Your task to perform on an android device: check data usage Image 0: 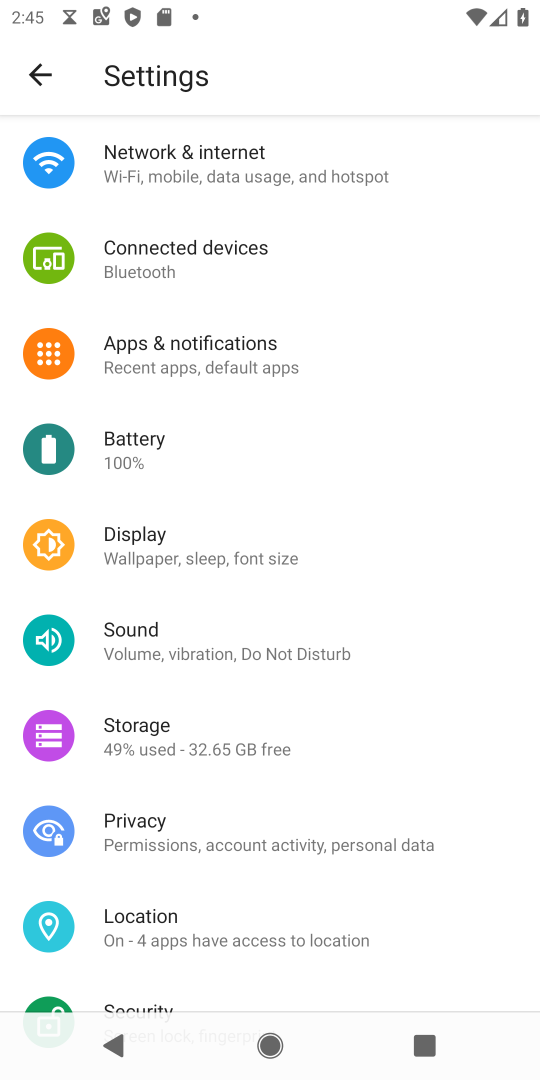
Step 0: press home button
Your task to perform on an android device: check data usage Image 1: 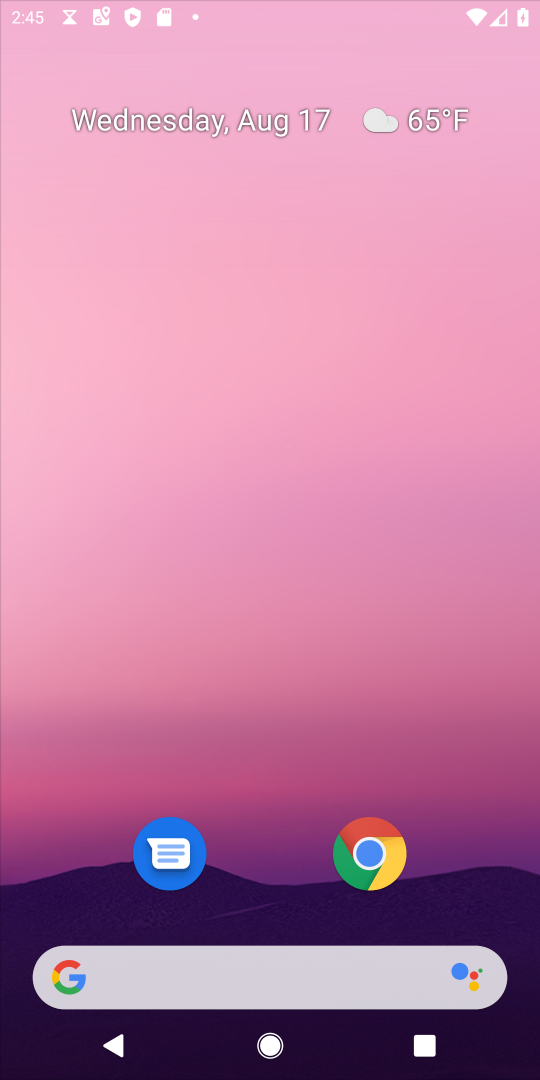
Step 1: drag from (358, 83) to (403, 722)
Your task to perform on an android device: check data usage Image 2: 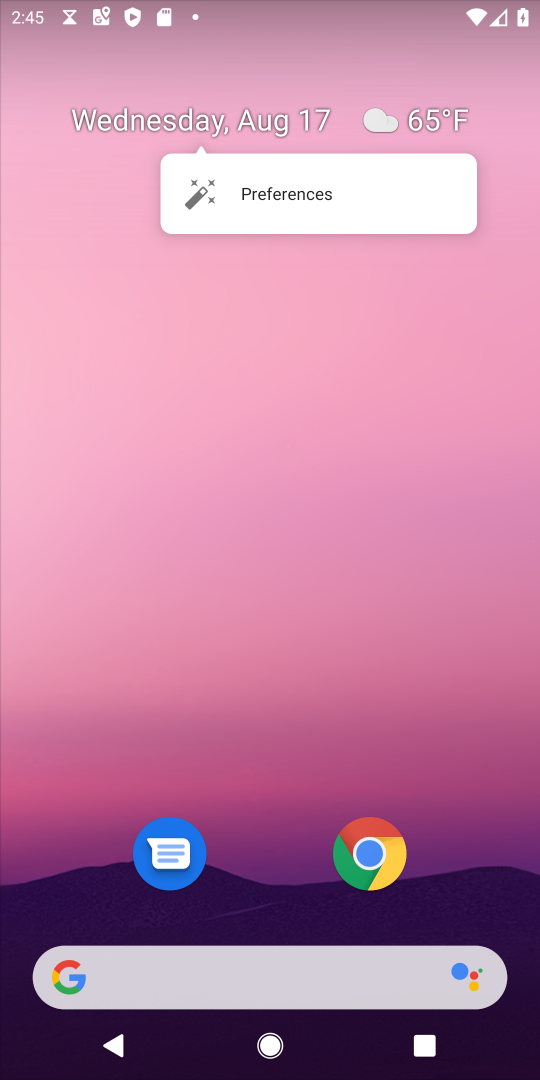
Step 2: drag from (208, 9) to (184, 610)
Your task to perform on an android device: check data usage Image 3: 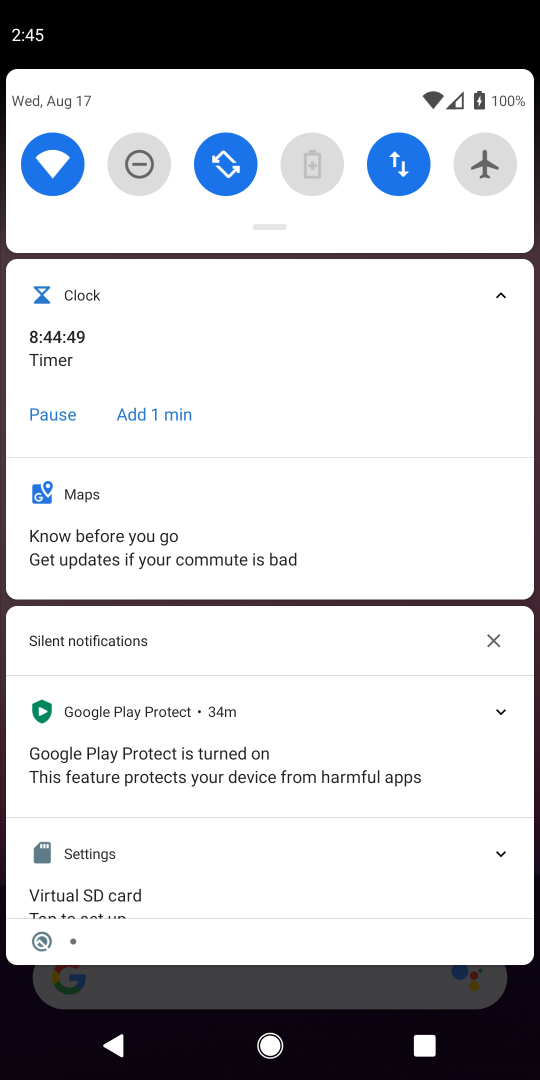
Step 3: click (406, 175)
Your task to perform on an android device: check data usage Image 4: 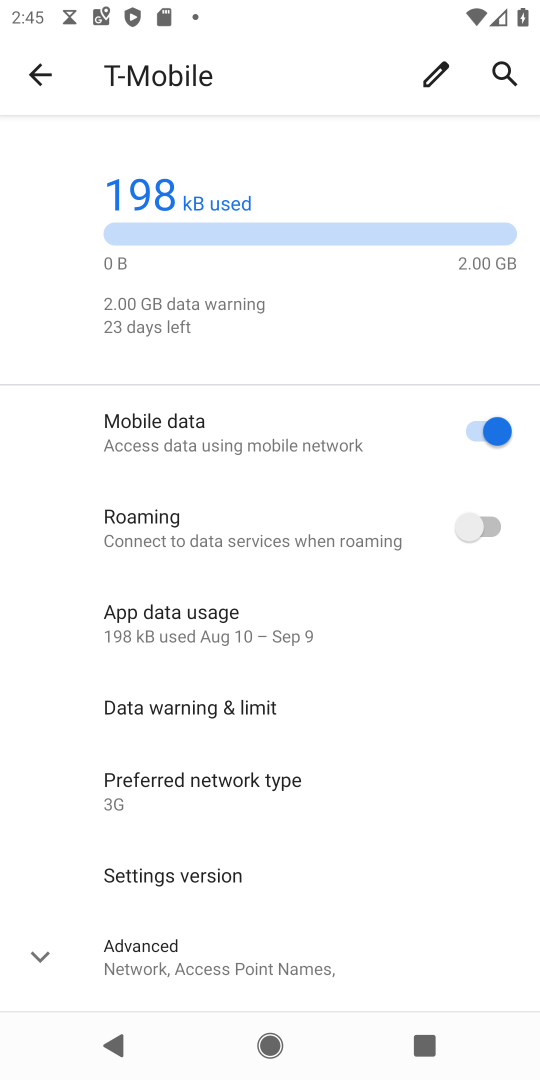
Step 4: task complete